Your task to perform on an android device: Search for vegetarian restaurants on Maps Image 0: 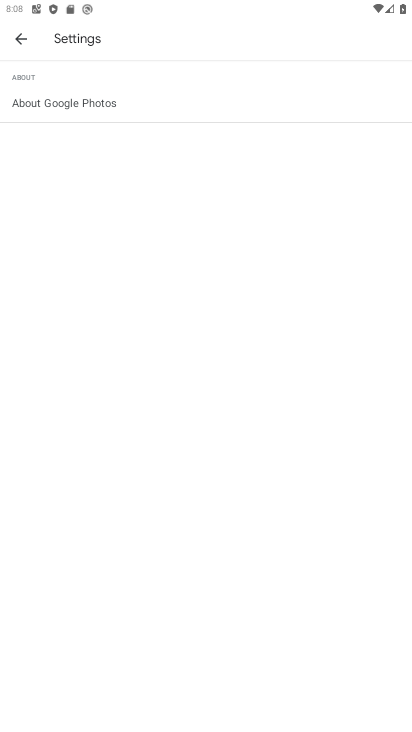
Step 0: press back button
Your task to perform on an android device: Search for vegetarian restaurants on Maps Image 1: 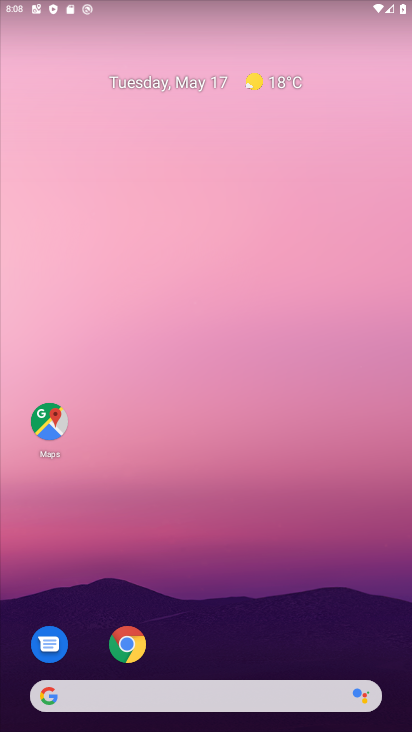
Step 1: click (58, 415)
Your task to perform on an android device: Search for vegetarian restaurants on Maps Image 2: 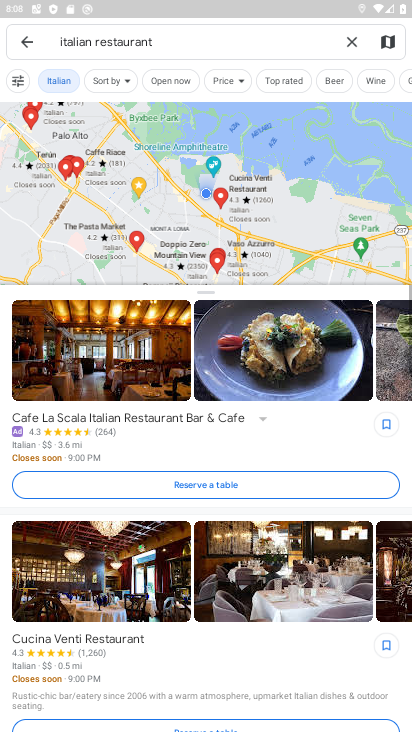
Step 2: click (340, 43)
Your task to perform on an android device: Search for vegetarian restaurants on Maps Image 3: 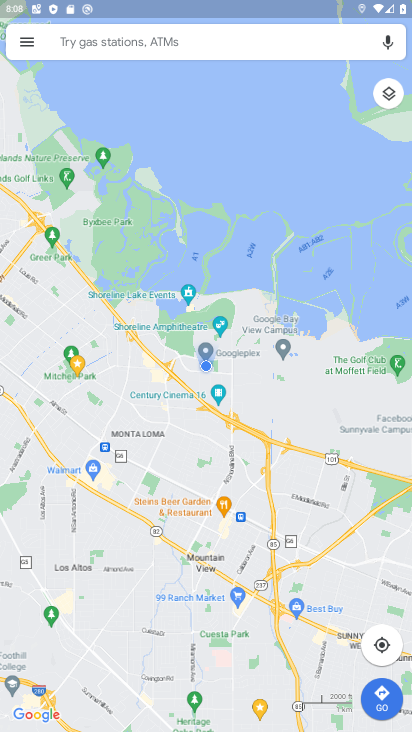
Step 3: click (94, 38)
Your task to perform on an android device: Search for vegetarian restaurants on Maps Image 4: 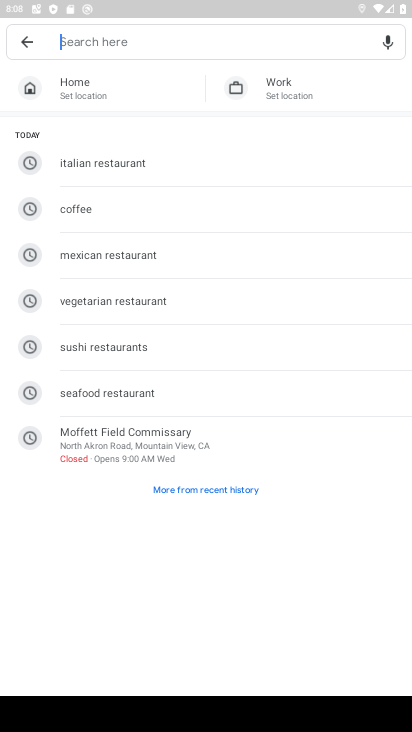
Step 4: click (100, 303)
Your task to perform on an android device: Search for vegetarian restaurants on Maps Image 5: 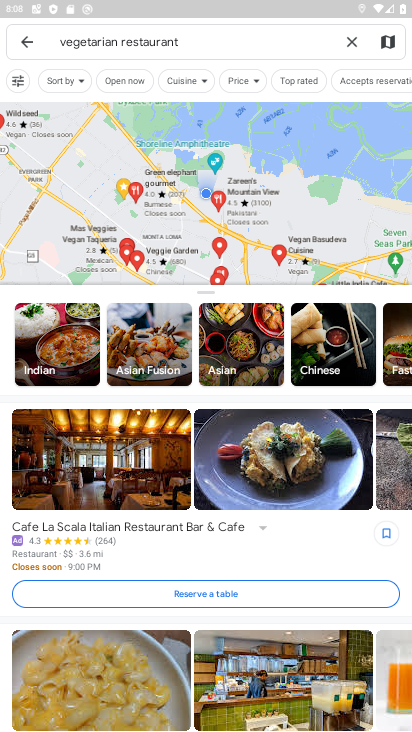
Step 5: task complete